Your task to perform on an android device: Is it going to rain this weekend? Image 0: 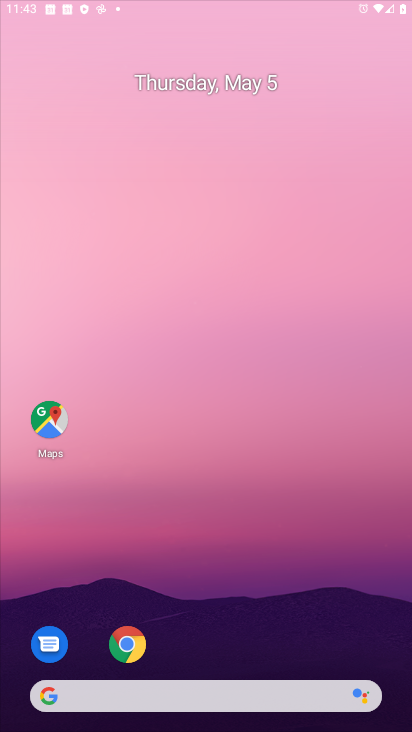
Step 0: drag from (293, 139) to (236, 234)
Your task to perform on an android device: Is it going to rain this weekend? Image 1: 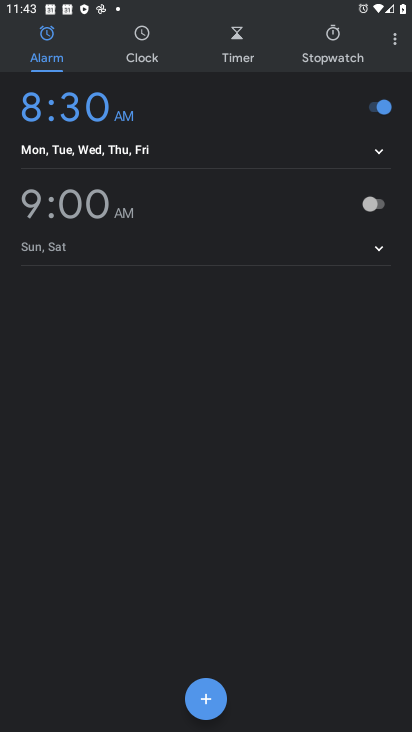
Step 1: press home button
Your task to perform on an android device: Is it going to rain this weekend? Image 2: 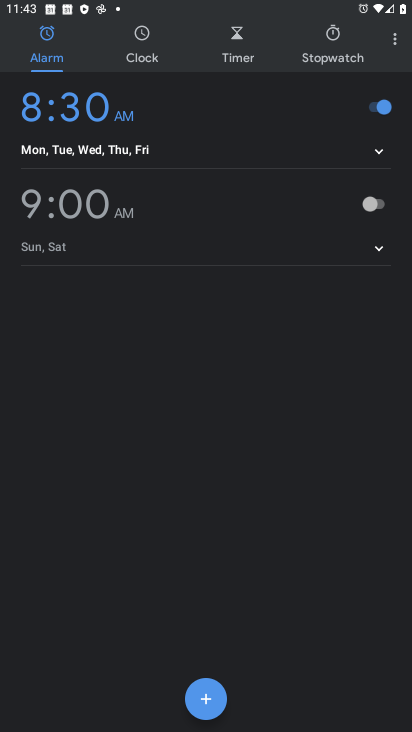
Step 2: press home button
Your task to perform on an android device: Is it going to rain this weekend? Image 3: 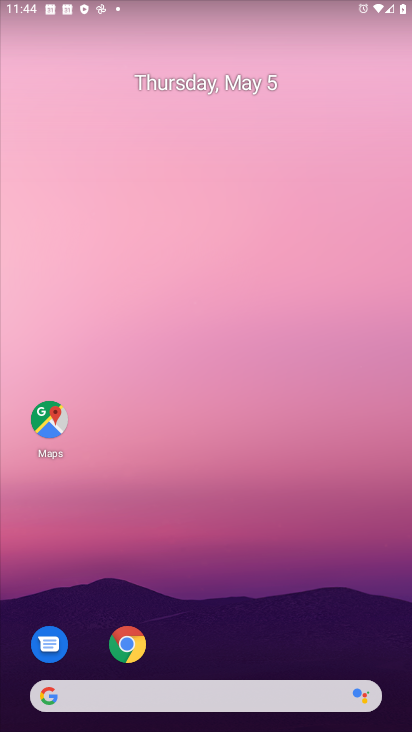
Step 3: drag from (205, 620) to (267, 99)
Your task to perform on an android device: Is it going to rain this weekend? Image 4: 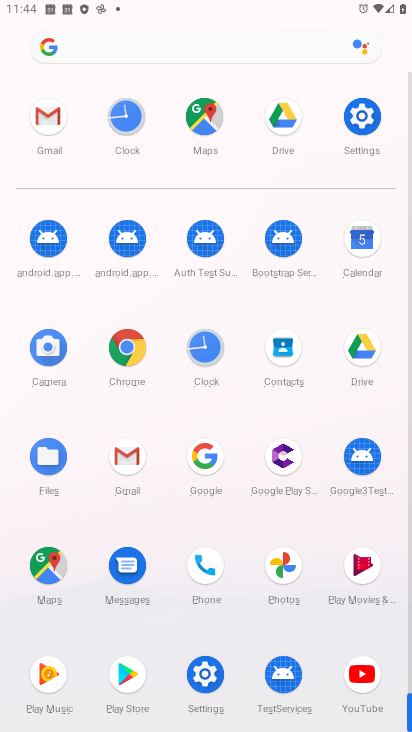
Step 4: click (237, 39)
Your task to perform on an android device: Is it going to rain this weekend? Image 5: 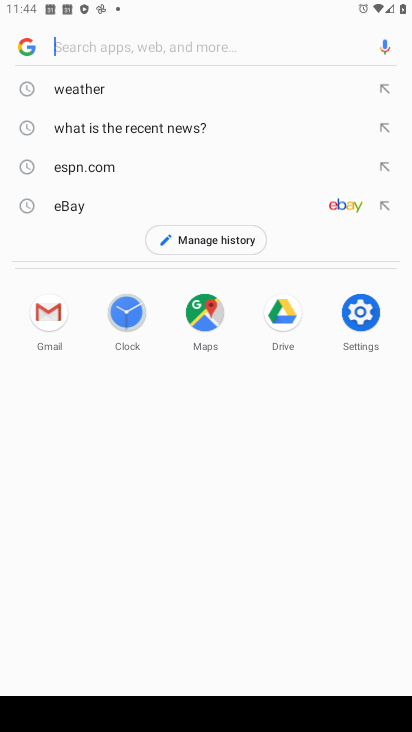
Step 5: click (157, 39)
Your task to perform on an android device: Is it going to rain this weekend? Image 6: 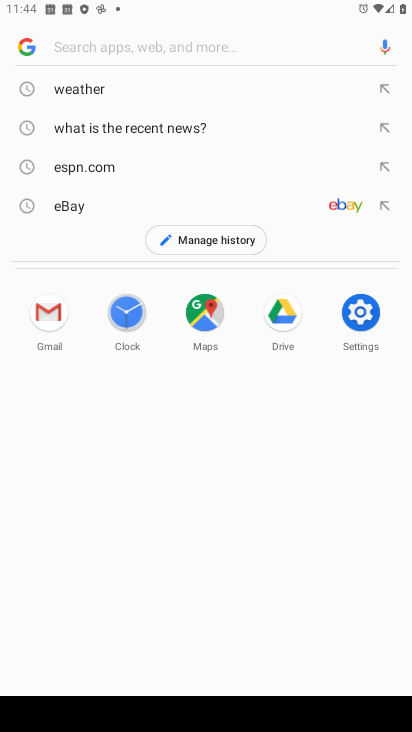
Step 6: drag from (183, 631) to (275, 87)
Your task to perform on an android device: Is it going to rain this weekend? Image 7: 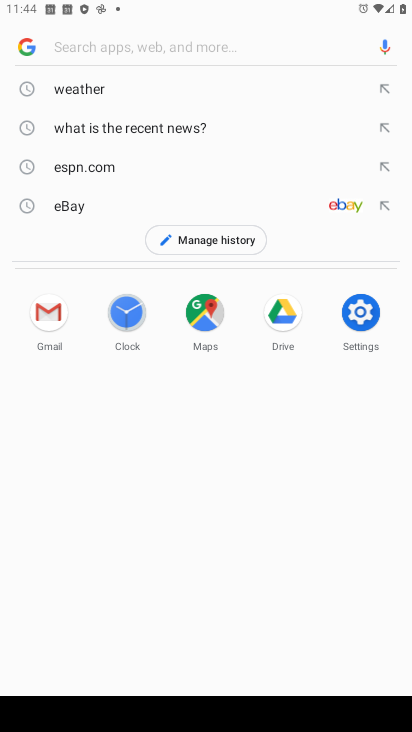
Step 7: click (102, 65)
Your task to perform on an android device: Is it going to rain this weekend? Image 8: 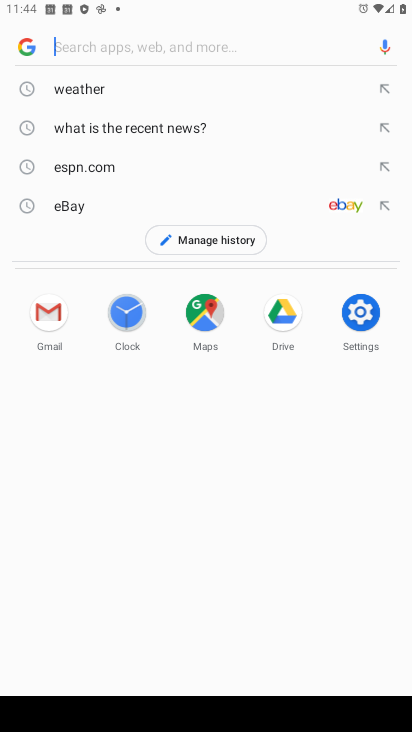
Step 8: click (93, 55)
Your task to perform on an android device: Is it going to rain this weekend? Image 9: 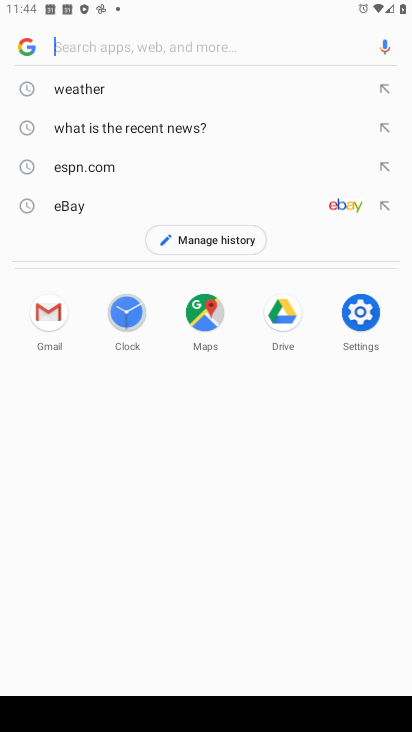
Step 9: click (93, 55)
Your task to perform on an android device: Is it going to rain this weekend? Image 10: 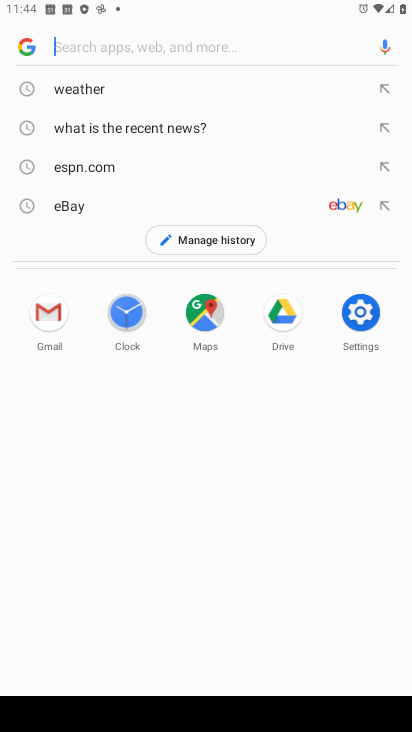
Step 10: type "rain weekend"
Your task to perform on an android device: Is it going to rain this weekend? Image 11: 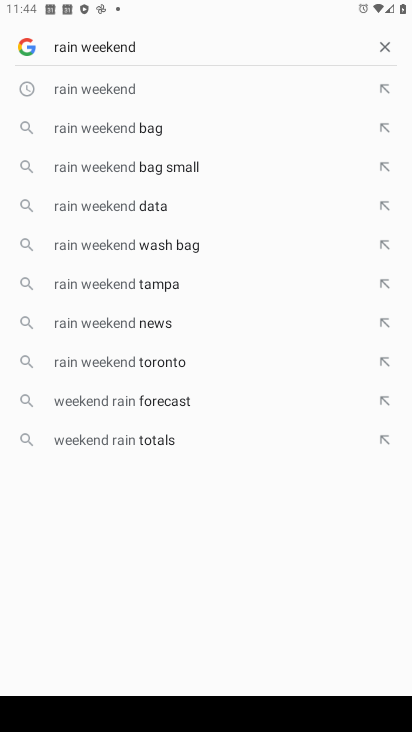
Step 11: click (132, 91)
Your task to perform on an android device: Is it going to rain this weekend? Image 12: 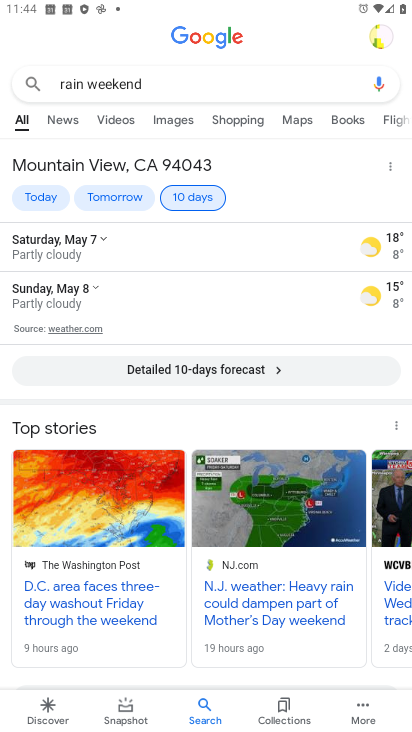
Step 12: task complete